Your task to perform on an android device: change the upload size in google photos Image 0: 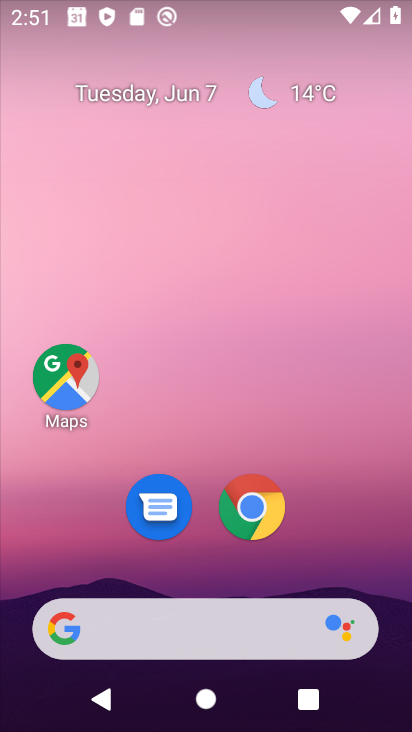
Step 0: drag from (364, 521) to (331, 131)
Your task to perform on an android device: change the upload size in google photos Image 1: 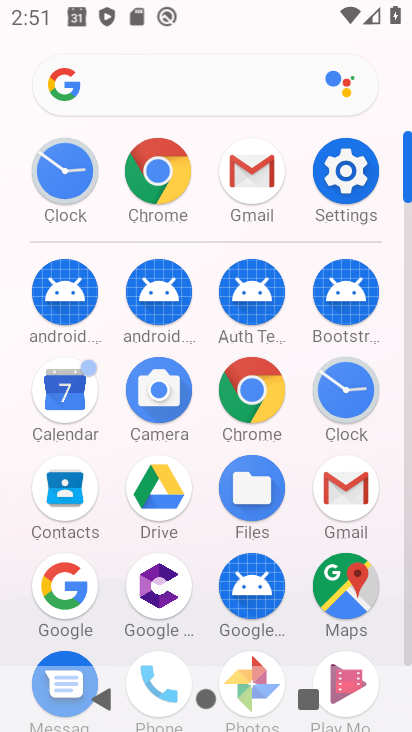
Step 1: click (256, 657)
Your task to perform on an android device: change the upload size in google photos Image 2: 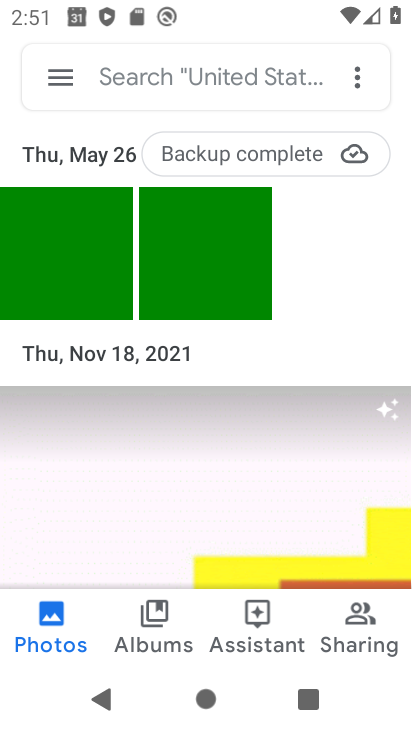
Step 2: click (52, 79)
Your task to perform on an android device: change the upload size in google photos Image 3: 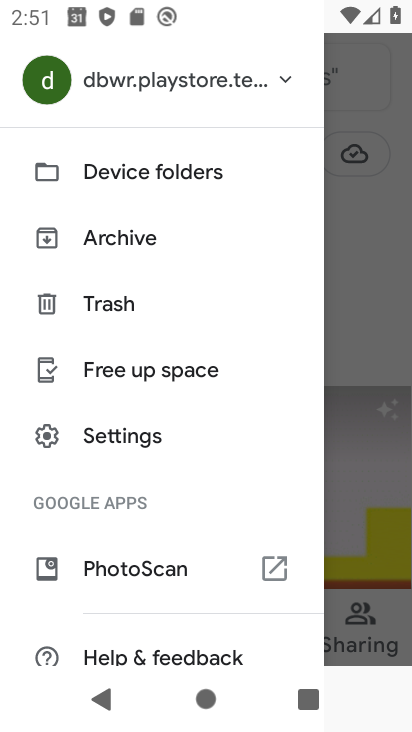
Step 3: drag from (174, 535) to (218, 97)
Your task to perform on an android device: change the upload size in google photos Image 4: 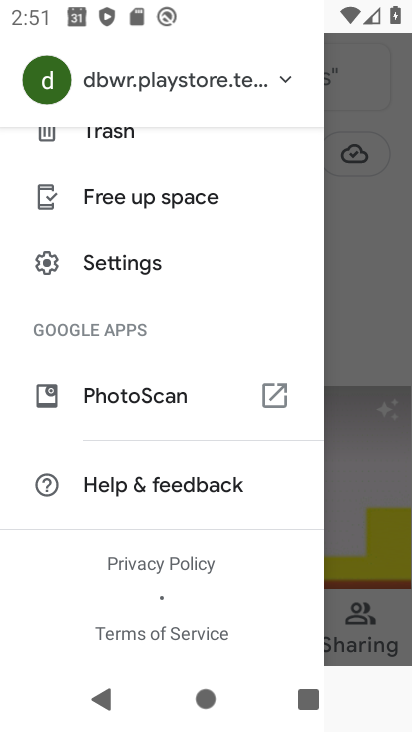
Step 4: click (135, 268)
Your task to perform on an android device: change the upload size in google photos Image 5: 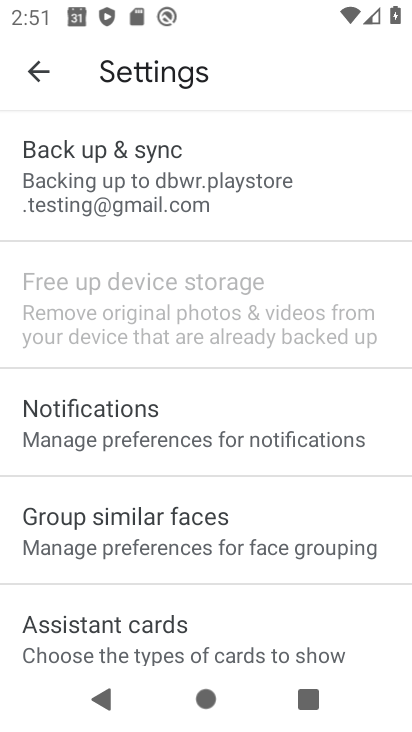
Step 5: drag from (237, 509) to (278, 55)
Your task to perform on an android device: change the upload size in google photos Image 6: 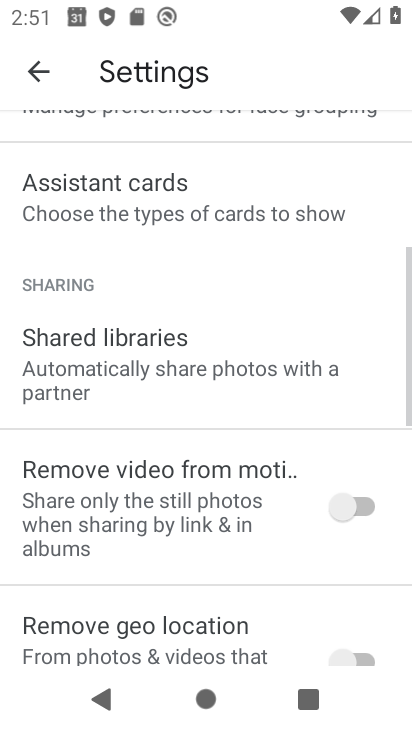
Step 6: drag from (212, 463) to (299, 100)
Your task to perform on an android device: change the upload size in google photos Image 7: 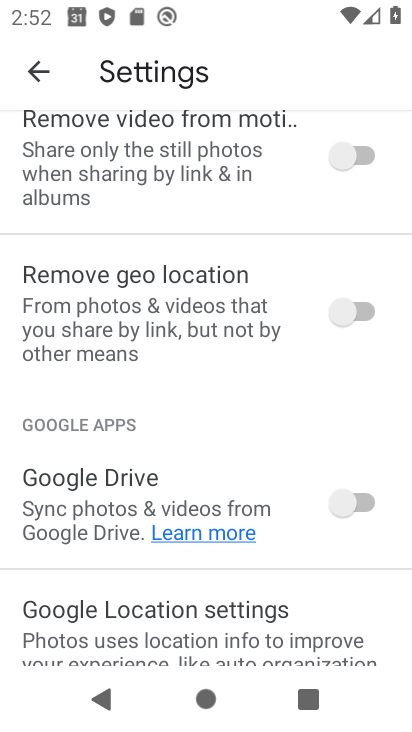
Step 7: drag from (200, 179) to (177, 614)
Your task to perform on an android device: change the upload size in google photos Image 8: 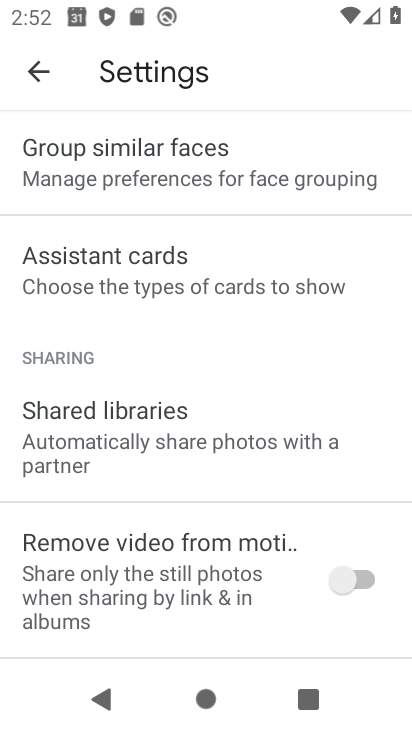
Step 8: drag from (209, 227) to (169, 706)
Your task to perform on an android device: change the upload size in google photos Image 9: 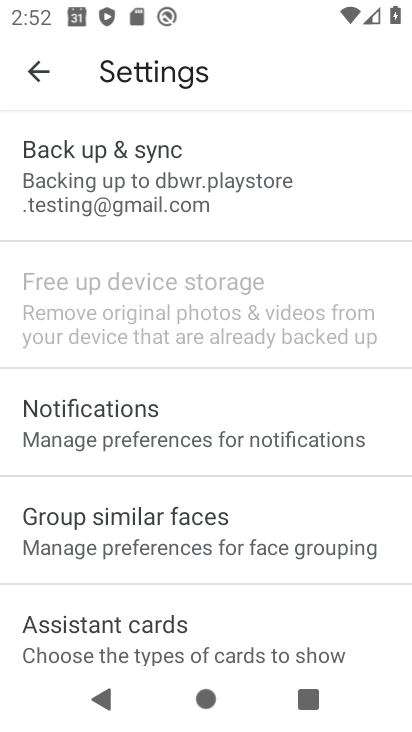
Step 9: click (156, 182)
Your task to perform on an android device: change the upload size in google photos Image 10: 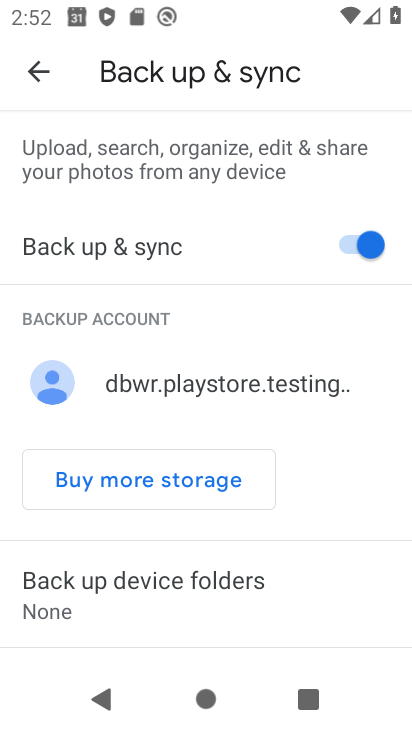
Step 10: drag from (226, 581) to (305, 134)
Your task to perform on an android device: change the upload size in google photos Image 11: 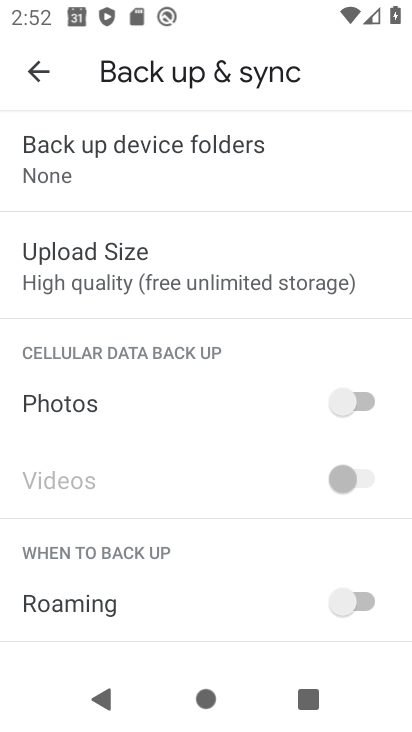
Step 11: click (203, 281)
Your task to perform on an android device: change the upload size in google photos Image 12: 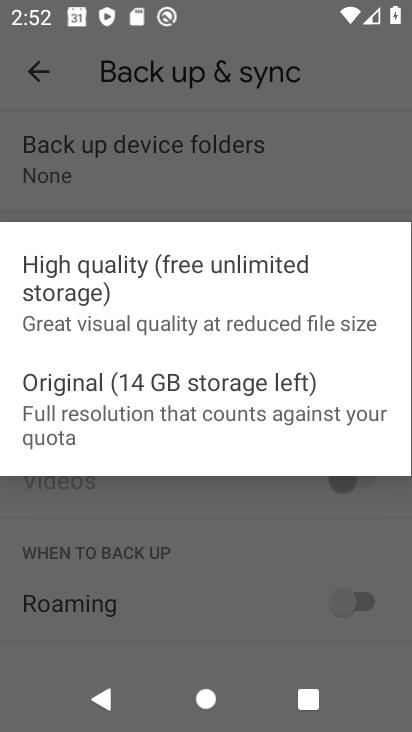
Step 12: click (98, 383)
Your task to perform on an android device: change the upload size in google photos Image 13: 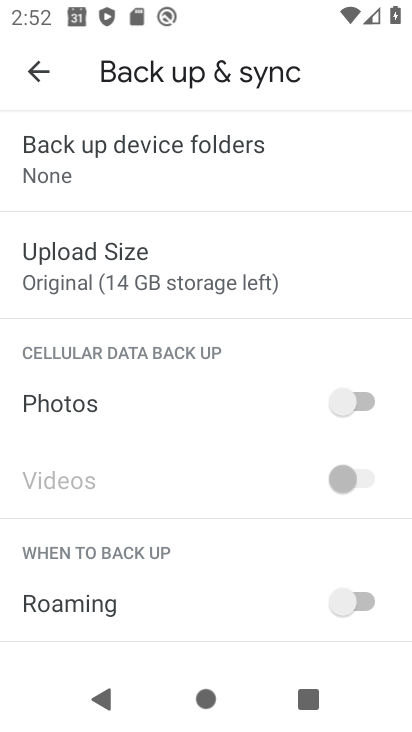
Step 13: task complete